Your task to perform on an android device: Open CNN.com Image 0: 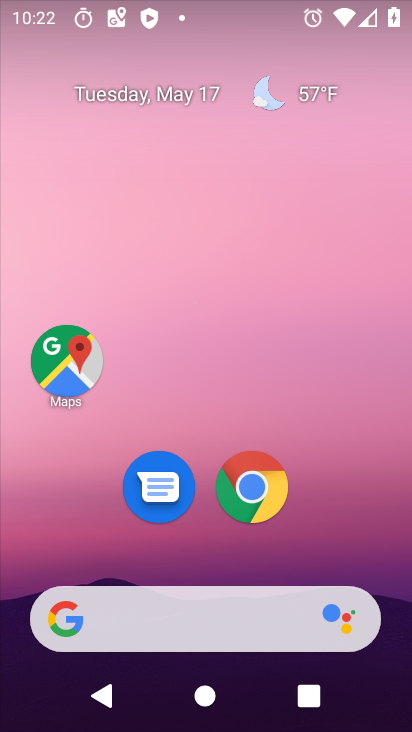
Step 0: click (250, 489)
Your task to perform on an android device: Open CNN.com Image 1: 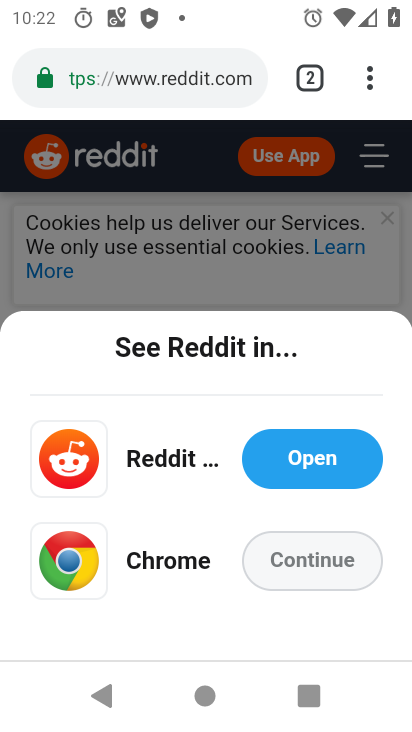
Step 1: click (371, 88)
Your task to perform on an android device: Open CNN.com Image 2: 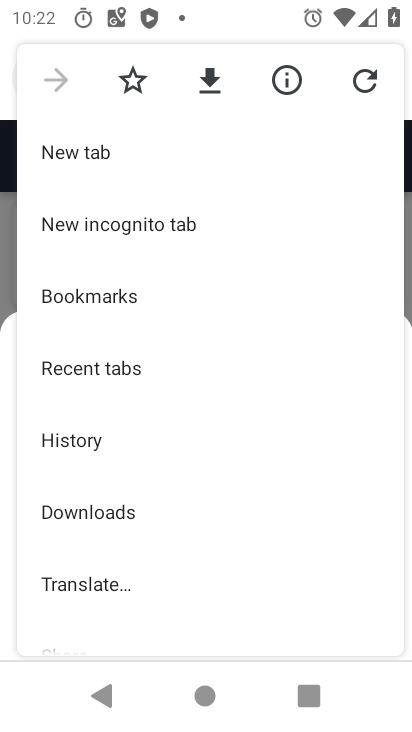
Step 2: click (68, 156)
Your task to perform on an android device: Open CNN.com Image 3: 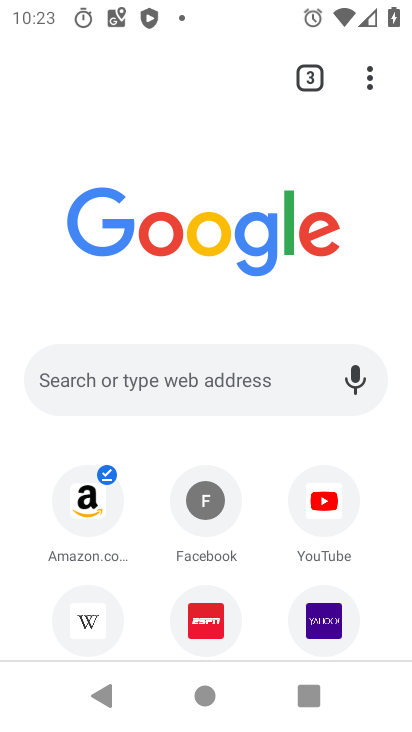
Step 3: click (175, 371)
Your task to perform on an android device: Open CNN.com Image 4: 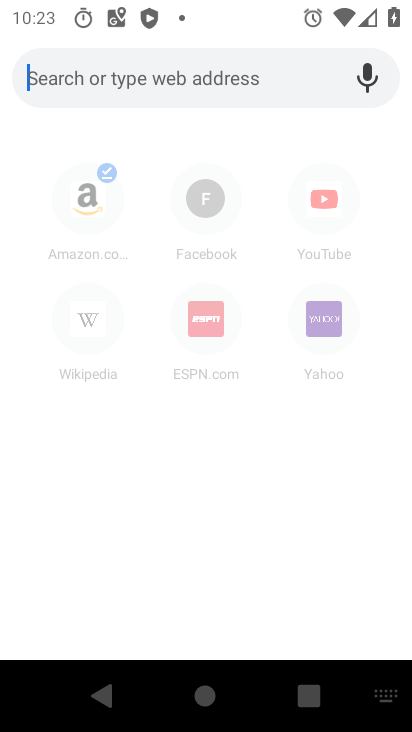
Step 4: type "CNN.com"
Your task to perform on an android device: Open CNN.com Image 5: 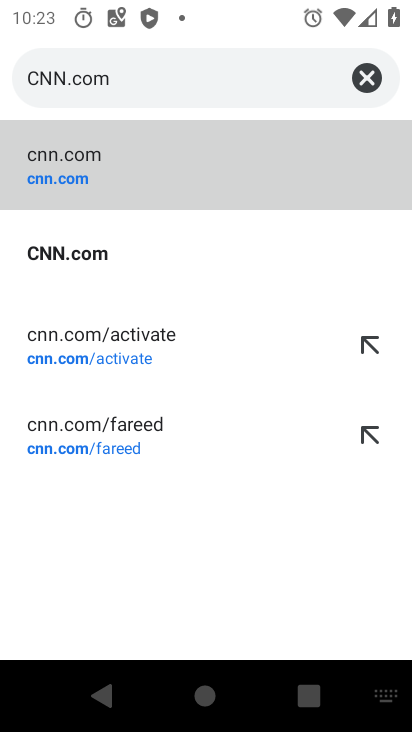
Step 5: click (63, 156)
Your task to perform on an android device: Open CNN.com Image 6: 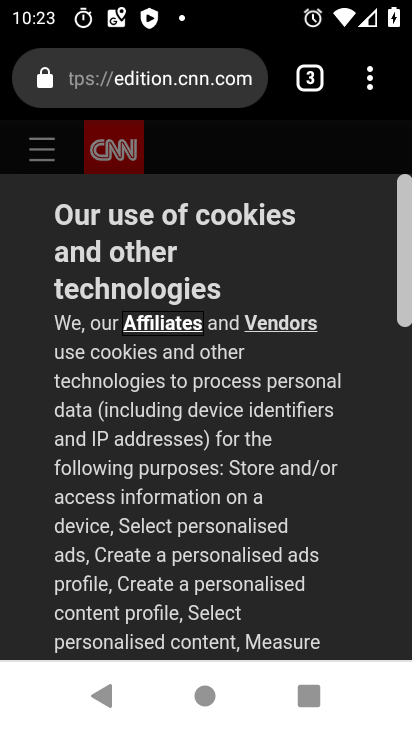
Step 6: task complete